Your task to perform on an android device: Do I have any events tomorrow? Image 0: 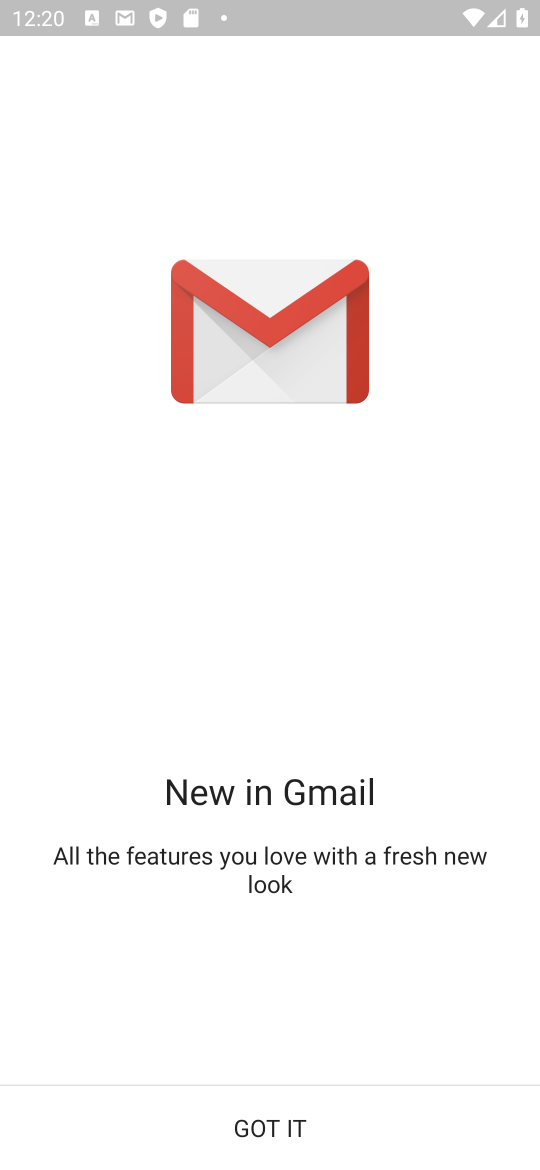
Step 0: press home button
Your task to perform on an android device: Do I have any events tomorrow? Image 1: 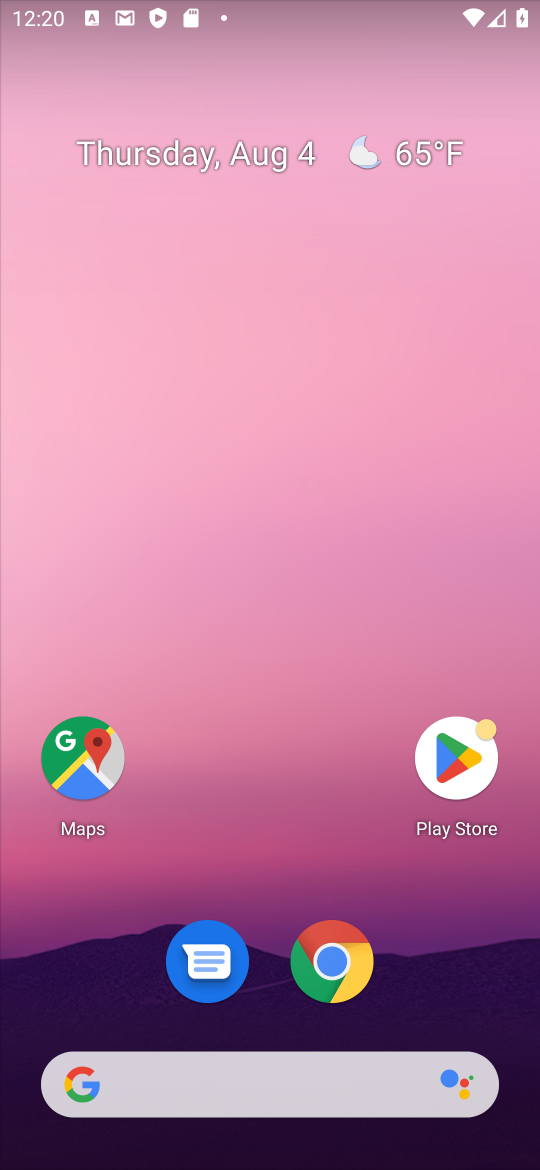
Step 1: drag from (254, 794) to (303, 2)
Your task to perform on an android device: Do I have any events tomorrow? Image 2: 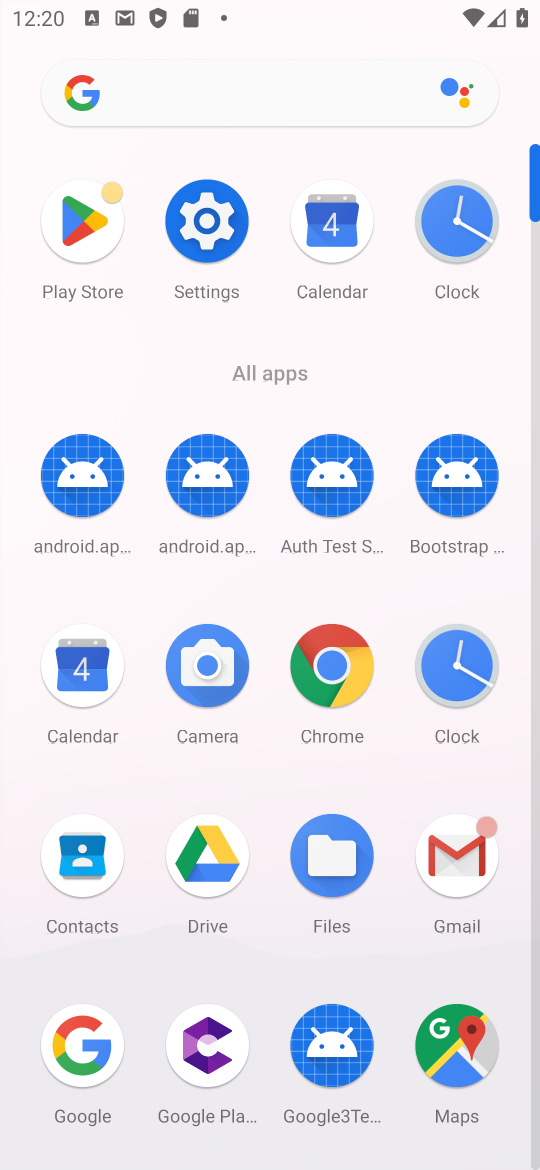
Step 2: click (85, 652)
Your task to perform on an android device: Do I have any events tomorrow? Image 3: 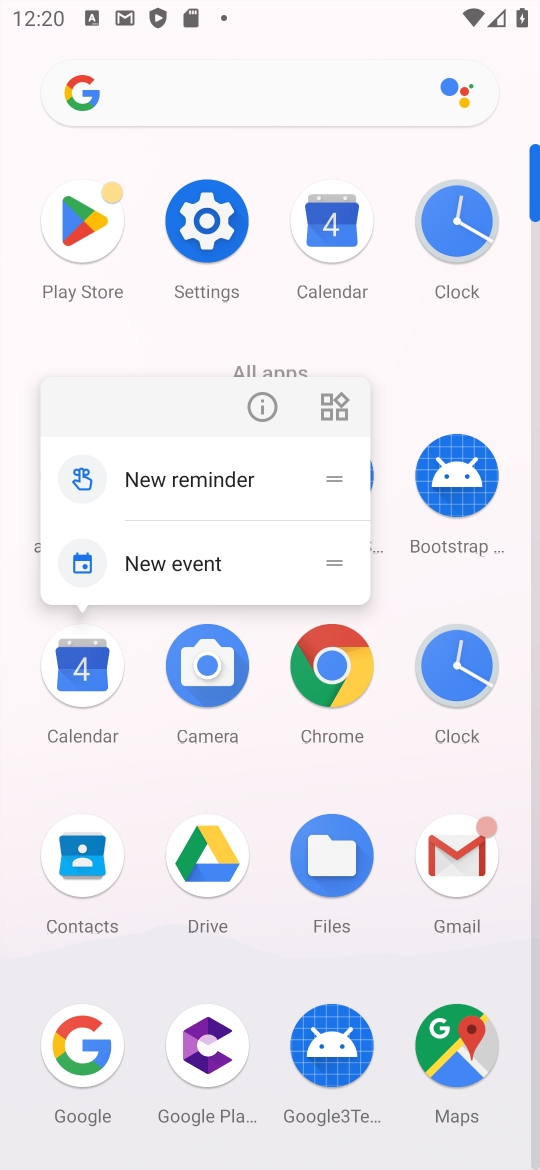
Step 3: click (85, 672)
Your task to perform on an android device: Do I have any events tomorrow? Image 4: 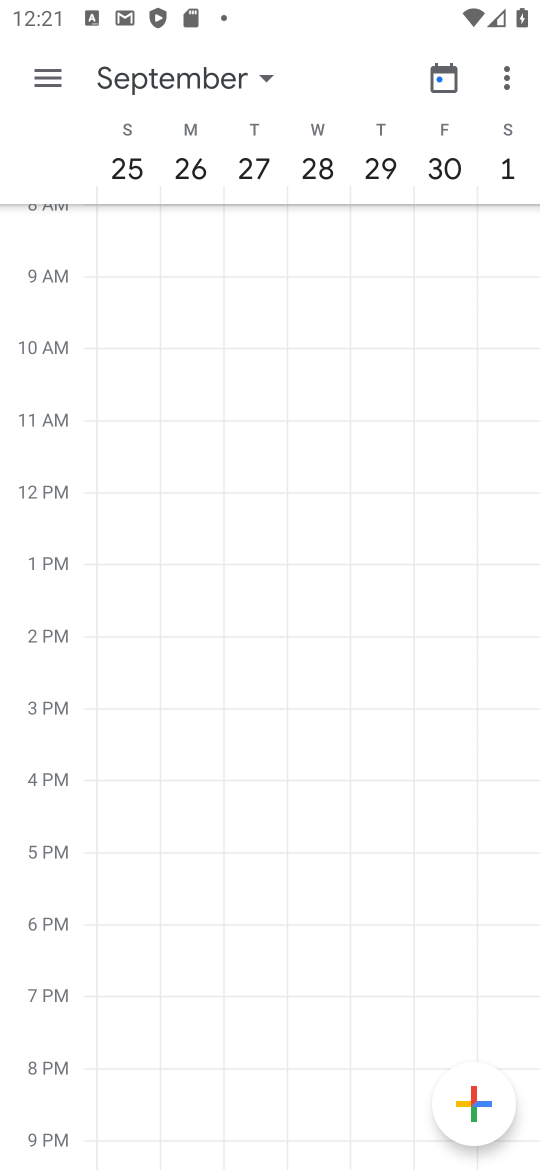
Step 4: drag from (103, 285) to (510, 431)
Your task to perform on an android device: Do I have any events tomorrow? Image 5: 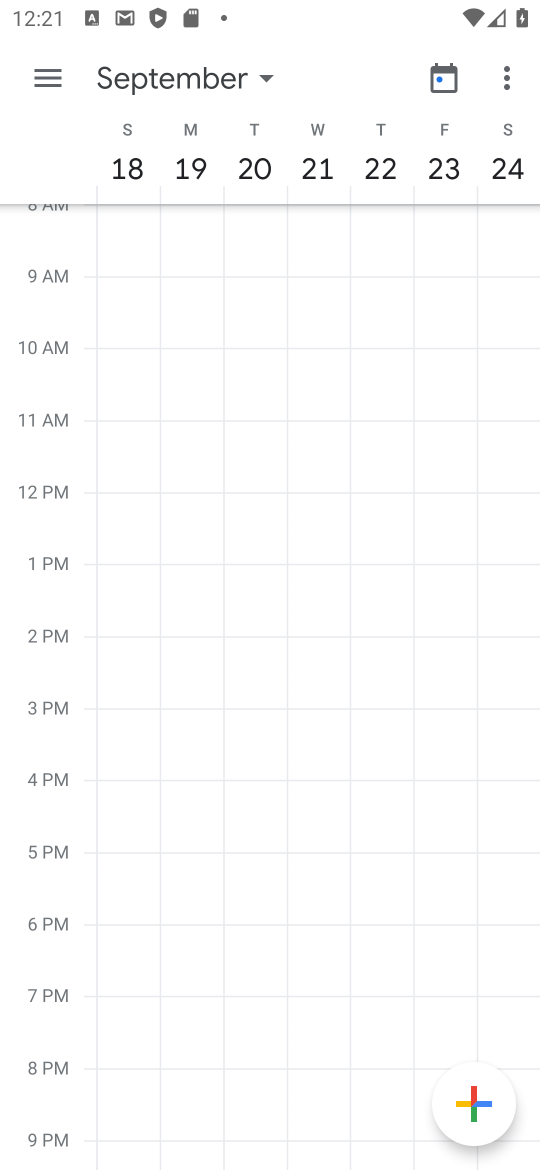
Step 5: drag from (120, 292) to (523, 466)
Your task to perform on an android device: Do I have any events tomorrow? Image 6: 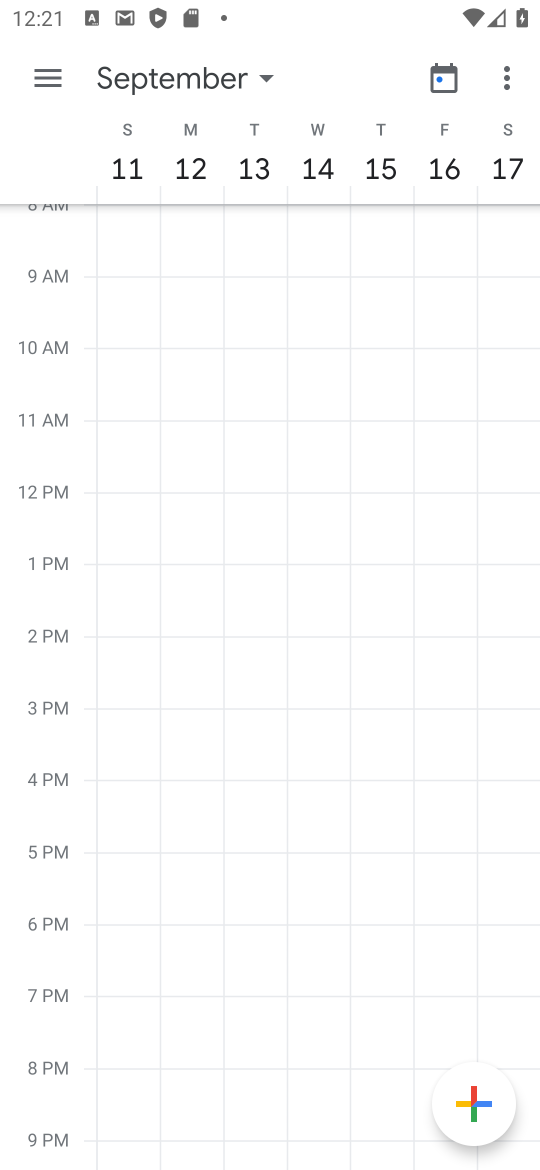
Step 6: drag from (126, 307) to (533, 442)
Your task to perform on an android device: Do I have any events tomorrow? Image 7: 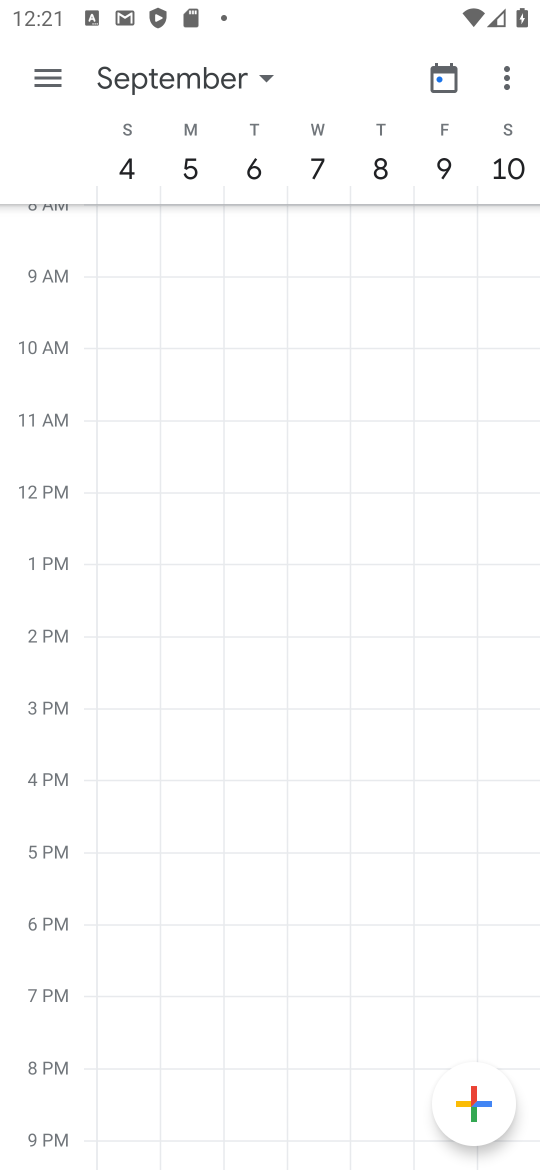
Step 7: drag from (116, 308) to (531, 440)
Your task to perform on an android device: Do I have any events tomorrow? Image 8: 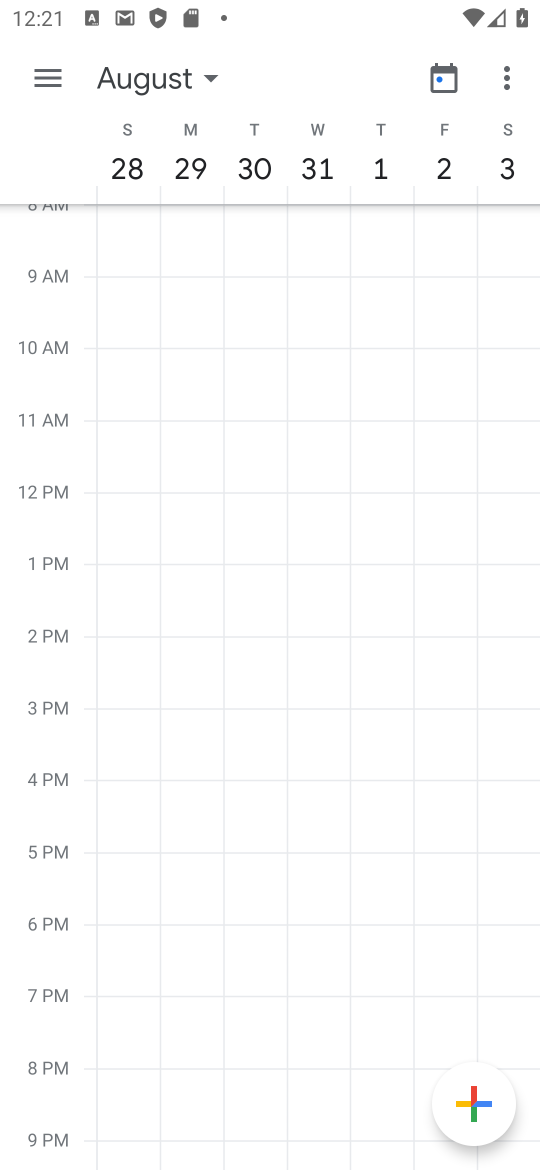
Step 8: drag from (117, 292) to (537, 347)
Your task to perform on an android device: Do I have any events tomorrow? Image 9: 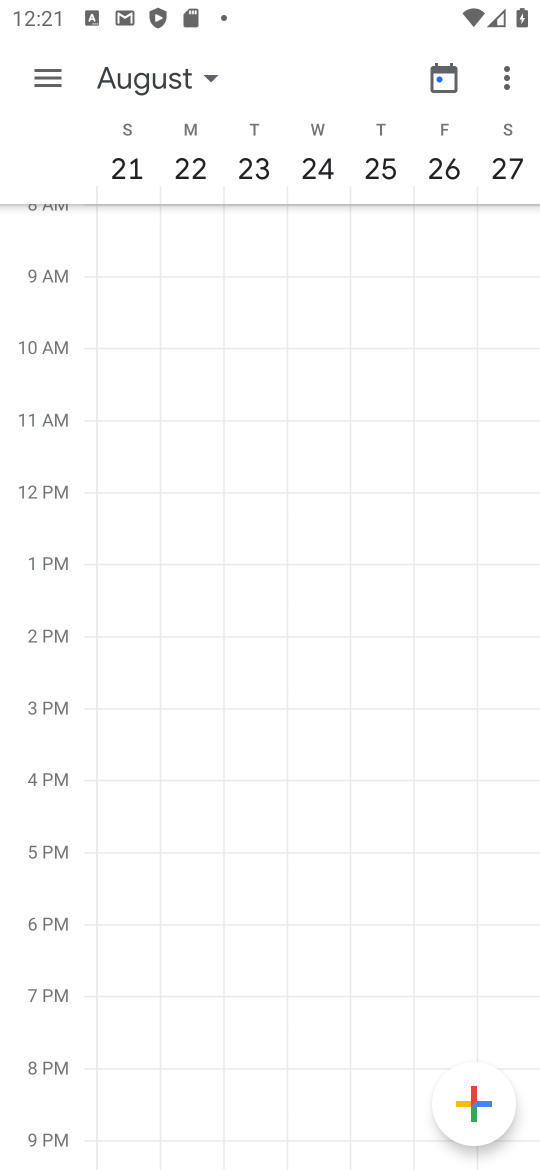
Step 9: drag from (128, 298) to (538, 446)
Your task to perform on an android device: Do I have any events tomorrow? Image 10: 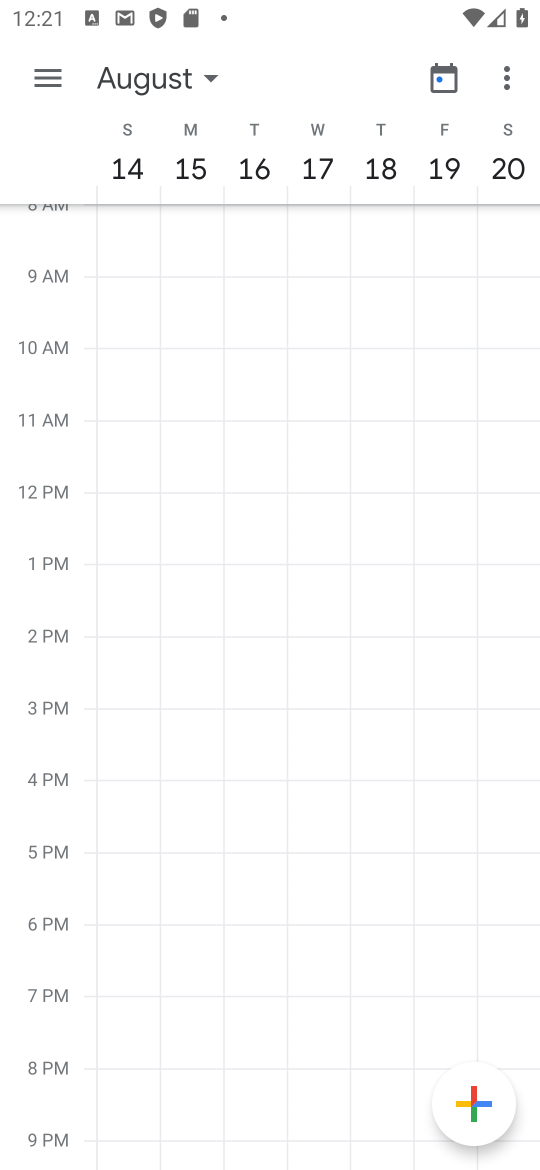
Step 10: drag from (131, 297) to (529, 432)
Your task to perform on an android device: Do I have any events tomorrow? Image 11: 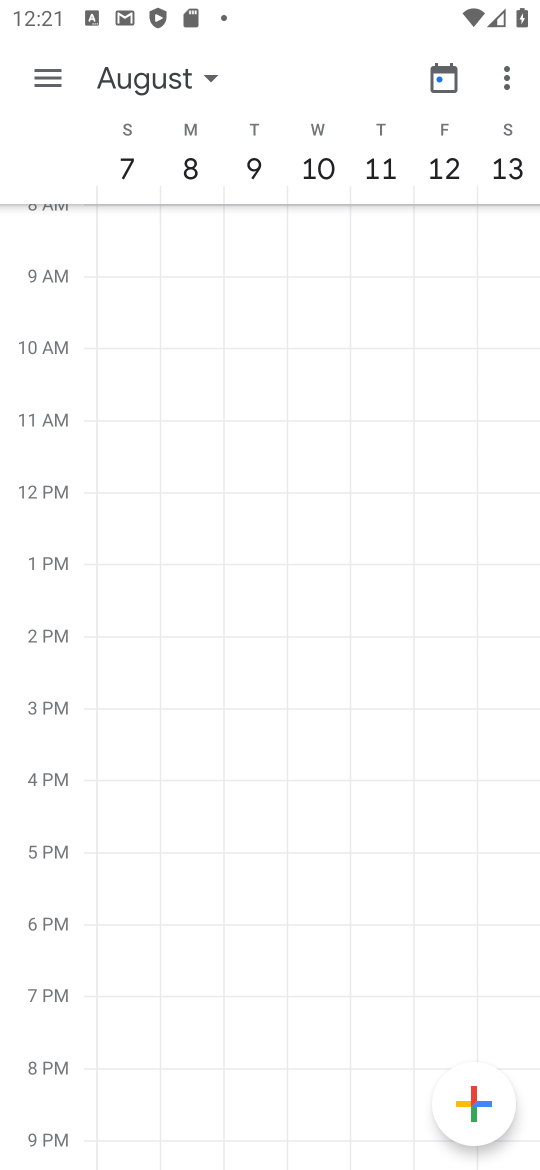
Step 11: drag from (129, 289) to (527, 467)
Your task to perform on an android device: Do I have any events tomorrow? Image 12: 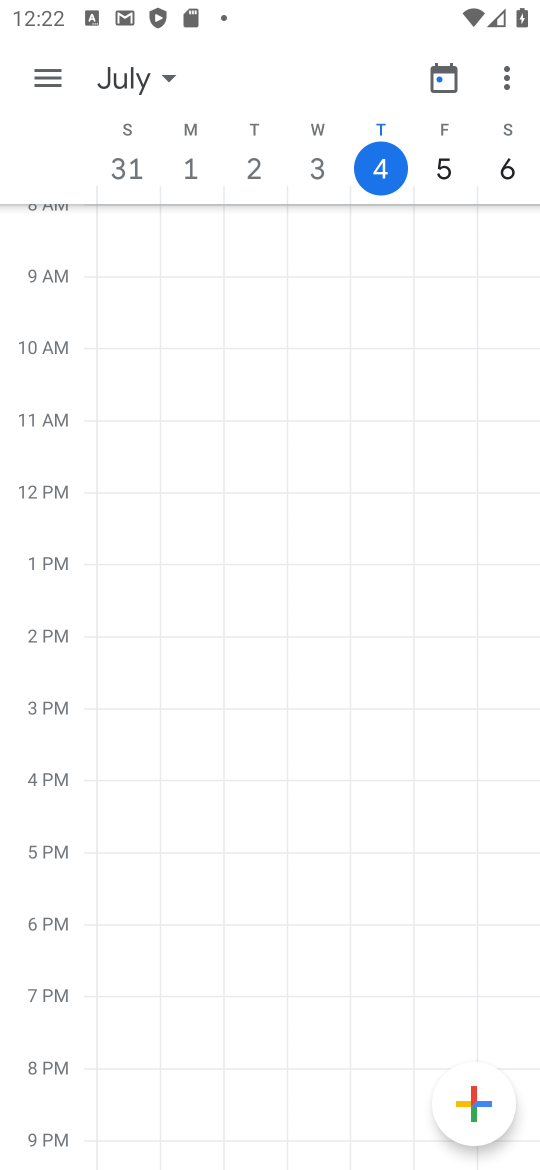
Step 12: click (444, 165)
Your task to perform on an android device: Do I have any events tomorrow? Image 13: 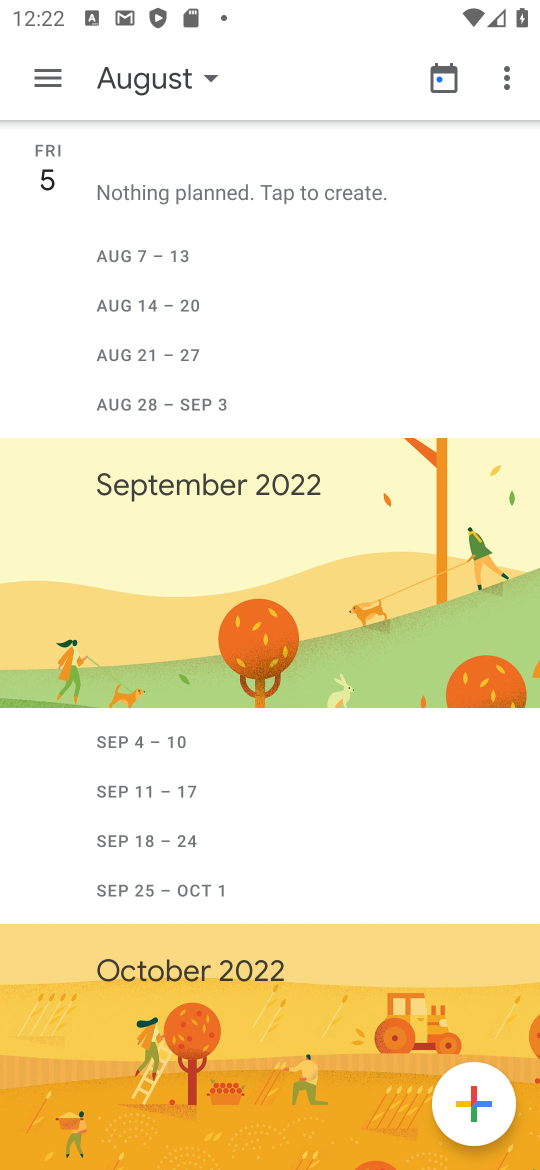
Step 13: task complete